Your task to perform on an android device: turn off improve location accuracy Image 0: 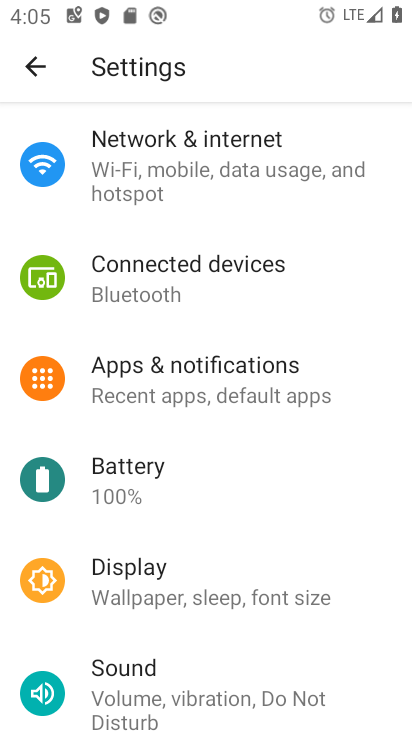
Step 0: drag from (267, 633) to (245, 203)
Your task to perform on an android device: turn off improve location accuracy Image 1: 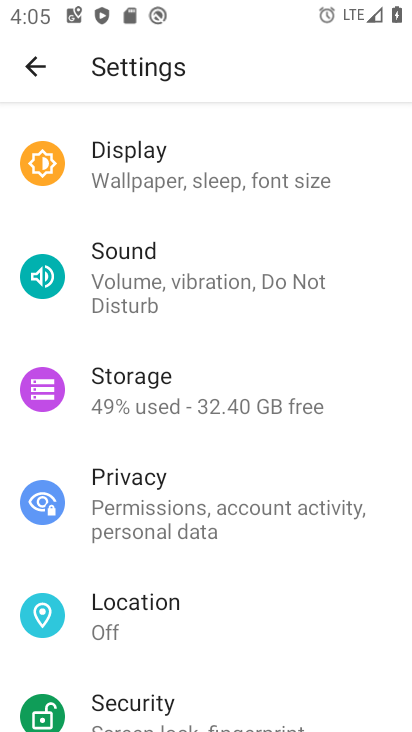
Step 1: click (230, 625)
Your task to perform on an android device: turn off improve location accuracy Image 2: 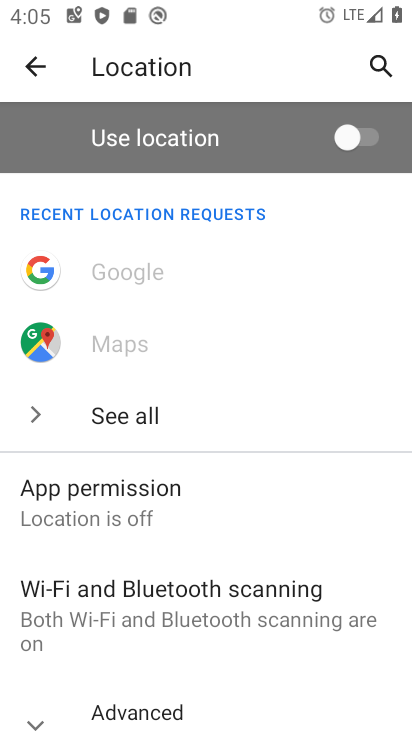
Step 2: drag from (263, 670) to (257, 295)
Your task to perform on an android device: turn off improve location accuracy Image 3: 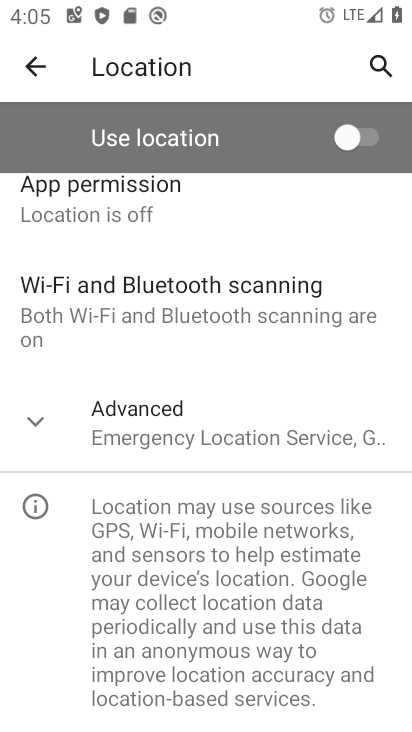
Step 3: click (29, 421)
Your task to perform on an android device: turn off improve location accuracy Image 4: 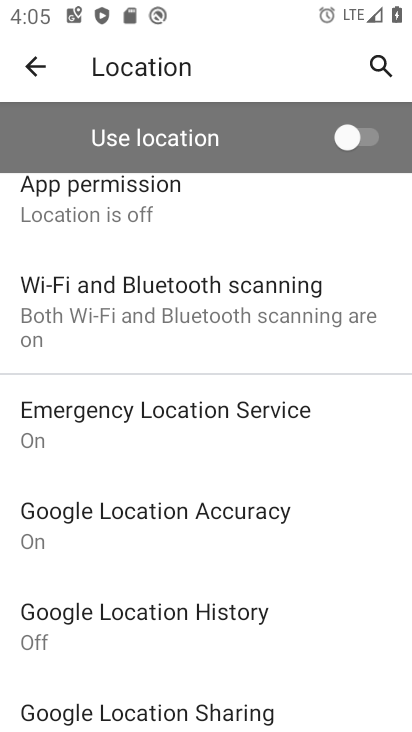
Step 4: click (172, 520)
Your task to perform on an android device: turn off improve location accuracy Image 5: 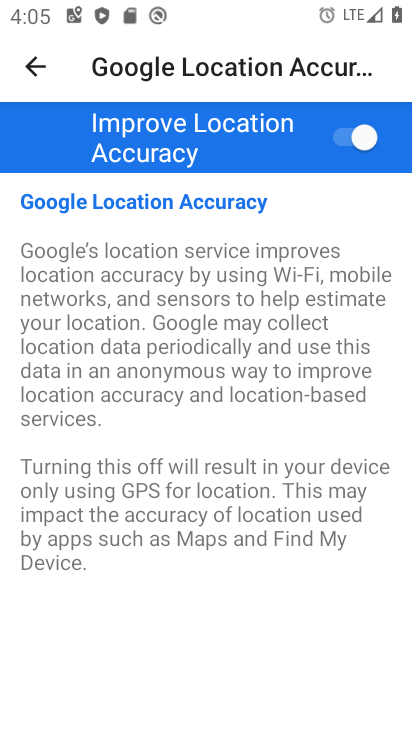
Step 5: click (349, 137)
Your task to perform on an android device: turn off improve location accuracy Image 6: 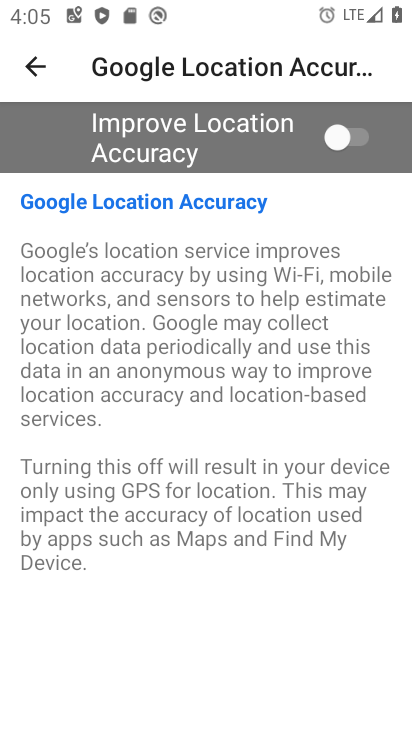
Step 6: task complete